Your task to perform on an android device: turn on data saver in the chrome app Image 0: 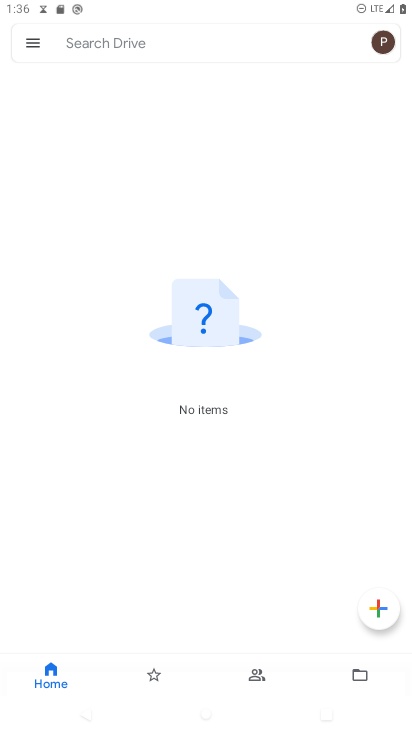
Step 0: press home button
Your task to perform on an android device: turn on data saver in the chrome app Image 1: 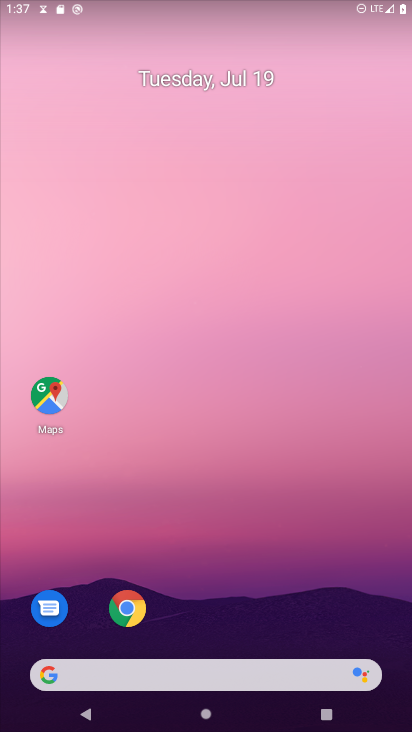
Step 1: drag from (279, 570) to (359, 0)
Your task to perform on an android device: turn on data saver in the chrome app Image 2: 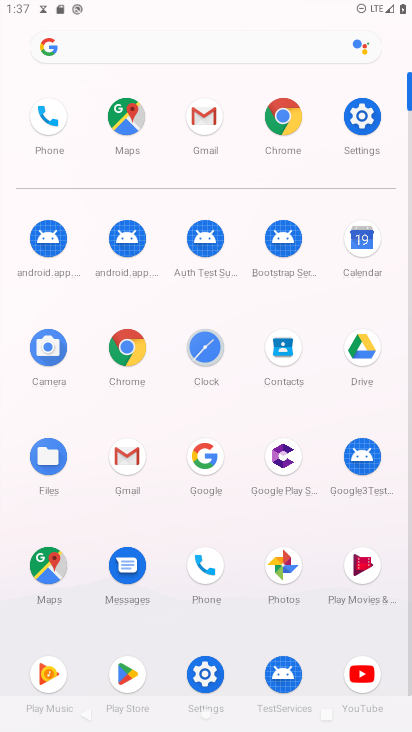
Step 2: click (122, 345)
Your task to perform on an android device: turn on data saver in the chrome app Image 3: 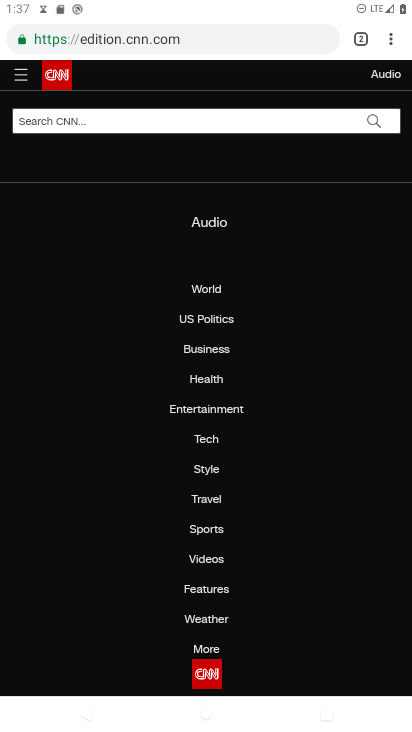
Step 3: drag from (391, 37) to (292, 422)
Your task to perform on an android device: turn on data saver in the chrome app Image 4: 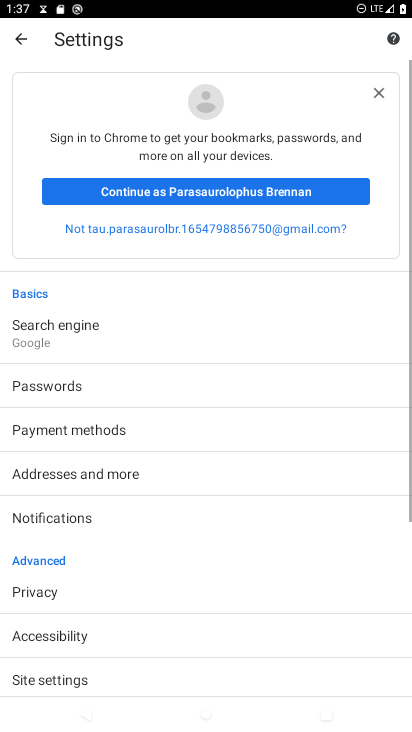
Step 4: drag from (142, 677) to (184, 196)
Your task to perform on an android device: turn on data saver in the chrome app Image 5: 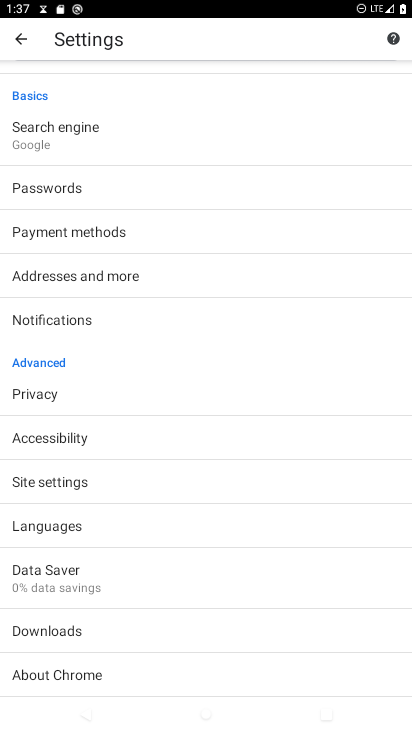
Step 5: click (72, 575)
Your task to perform on an android device: turn on data saver in the chrome app Image 6: 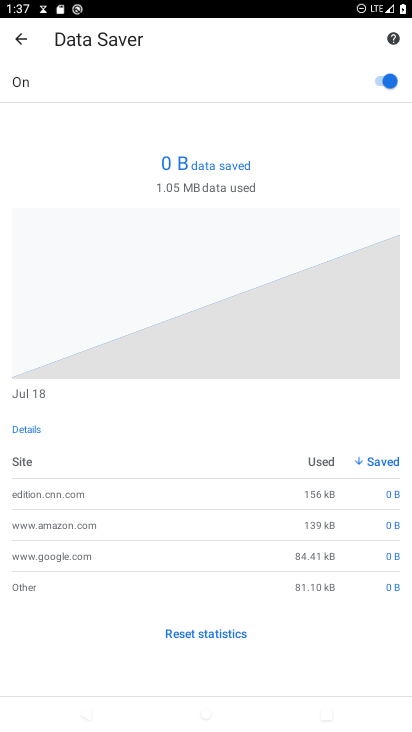
Step 6: task complete